Your task to perform on an android device: Find coffee shops on Maps Image 0: 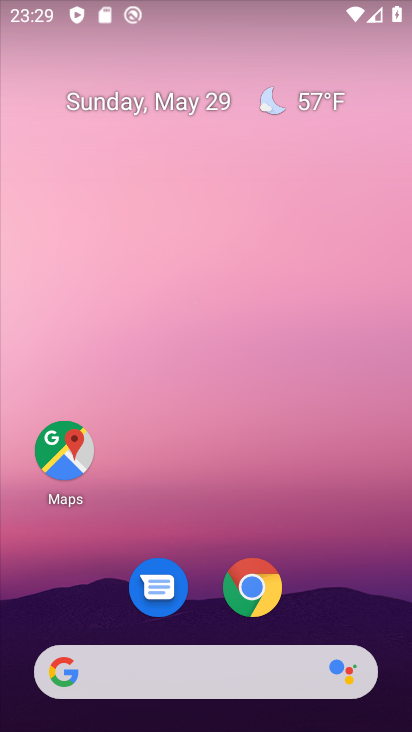
Step 0: click (59, 457)
Your task to perform on an android device: Find coffee shops on Maps Image 1: 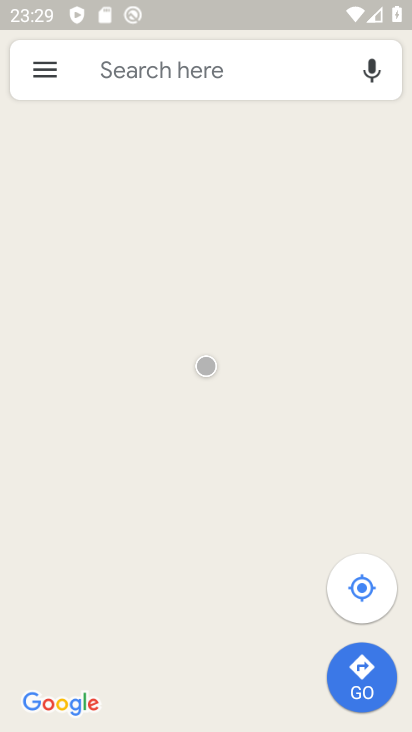
Step 1: click (135, 78)
Your task to perform on an android device: Find coffee shops on Maps Image 2: 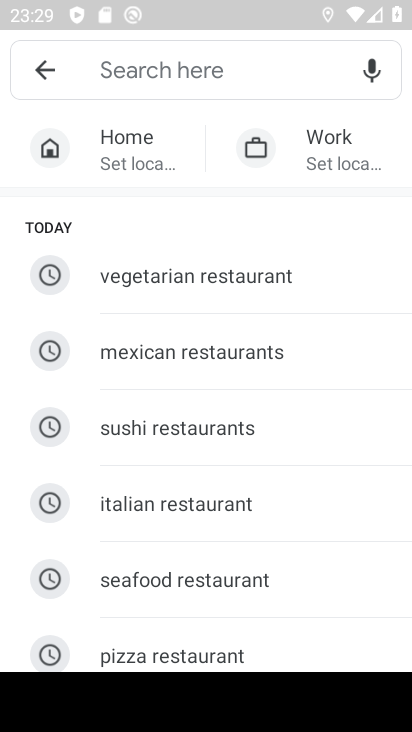
Step 2: type "coffee shops"
Your task to perform on an android device: Find coffee shops on Maps Image 3: 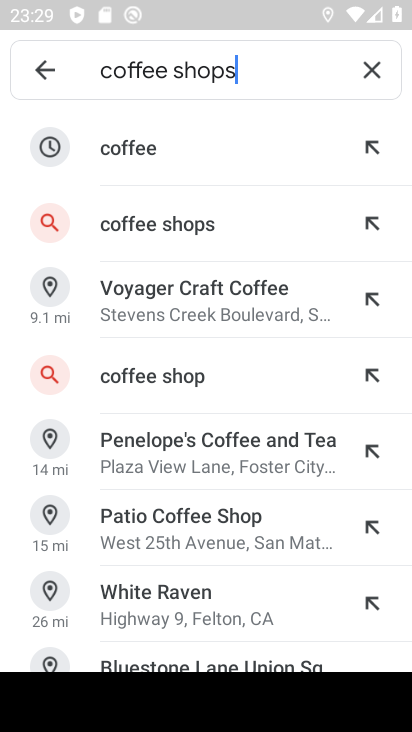
Step 3: click (228, 237)
Your task to perform on an android device: Find coffee shops on Maps Image 4: 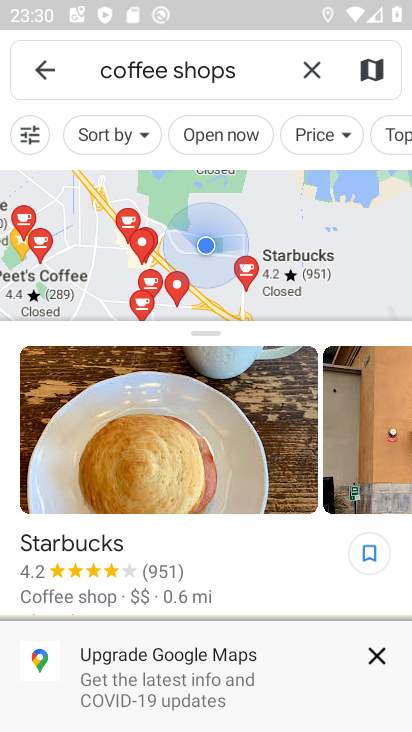
Step 4: task complete